Your task to perform on an android device: Open calendar and show me the first week of next month Image 0: 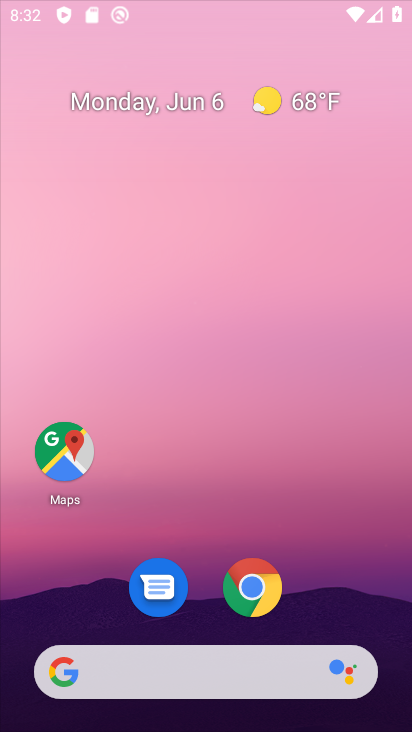
Step 0: drag from (224, 646) to (245, 1)
Your task to perform on an android device: Open calendar and show me the first week of next month Image 1: 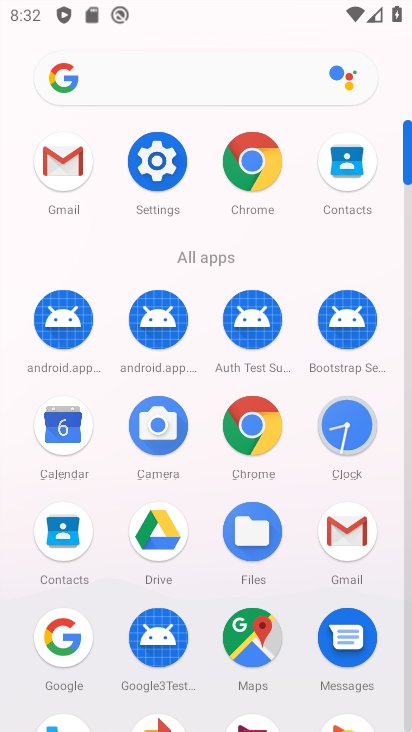
Step 1: click (46, 441)
Your task to perform on an android device: Open calendar and show me the first week of next month Image 2: 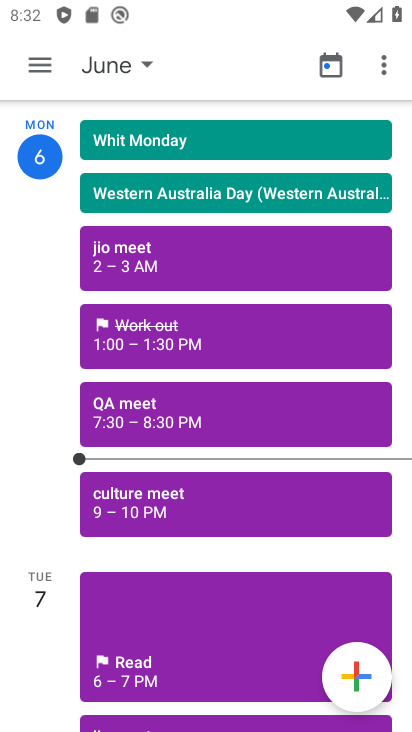
Step 2: click (44, 74)
Your task to perform on an android device: Open calendar and show me the first week of next month Image 3: 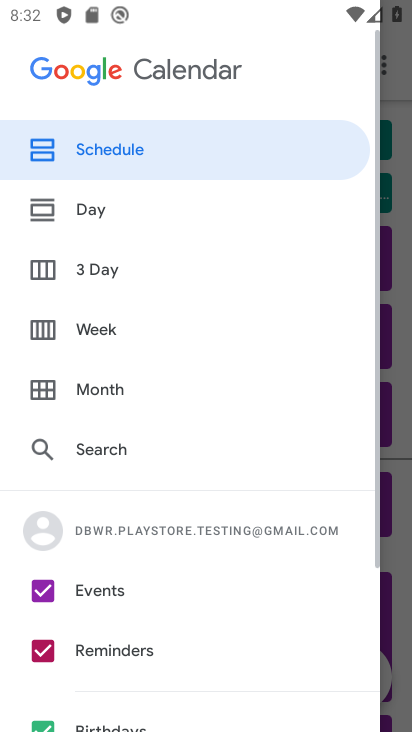
Step 3: click (101, 388)
Your task to perform on an android device: Open calendar and show me the first week of next month Image 4: 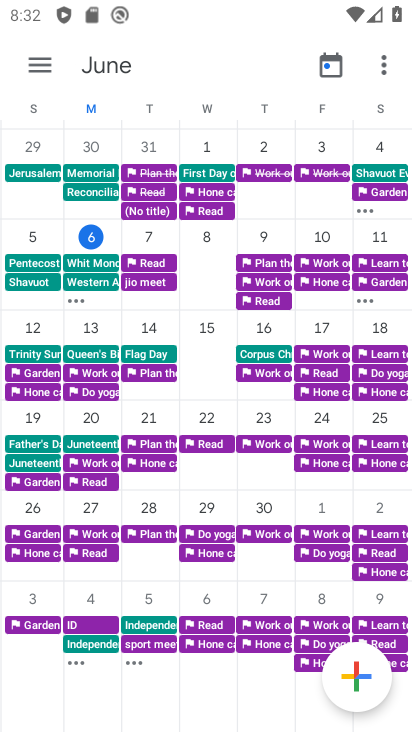
Step 4: task complete